Your task to perform on an android device: turn off sleep mode Image 0: 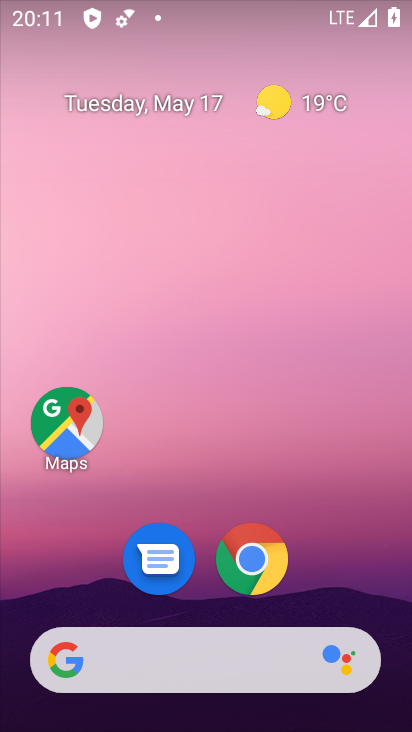
Step 0: drag from (194, 513) to (194, 110)
Your task to perform on an android device: turn off sleep mode Image 1: 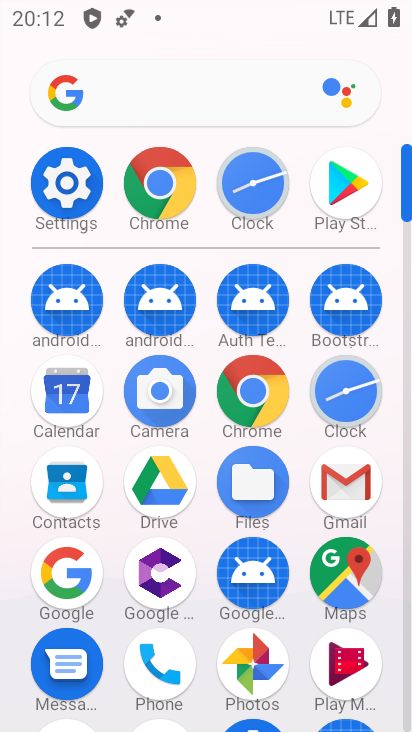
Step 1: click (59, 184)
Your task to perform on an android device: turn off sleep mode Image 2: 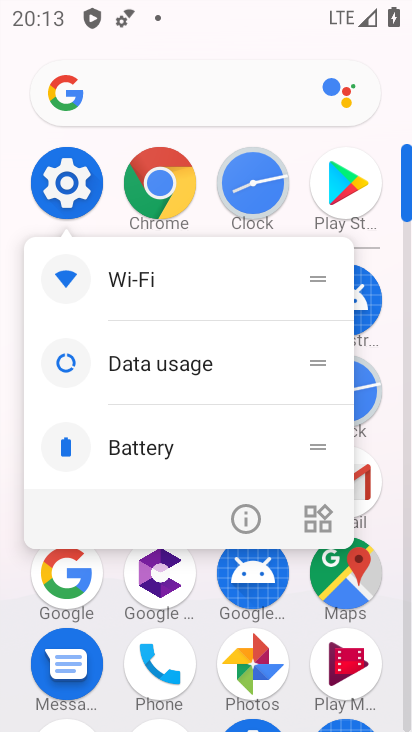
Step 2: click (248, 518)
Your task to perform on an android device: turn off sleep mode Image 3: 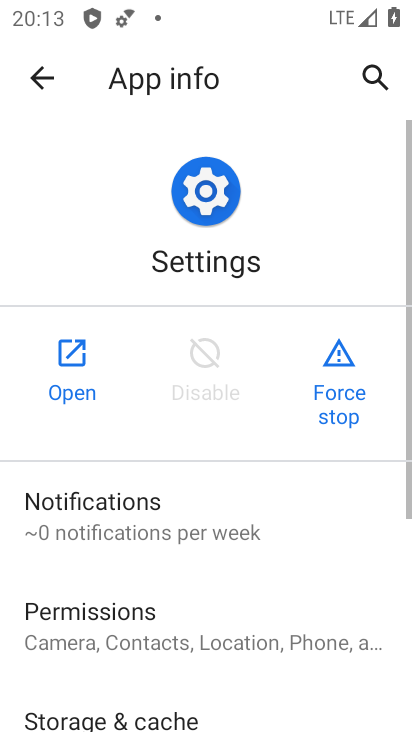
Step 3: click (76, 348)
Your task to perform on an android device: turn off sleep mode Image 4: 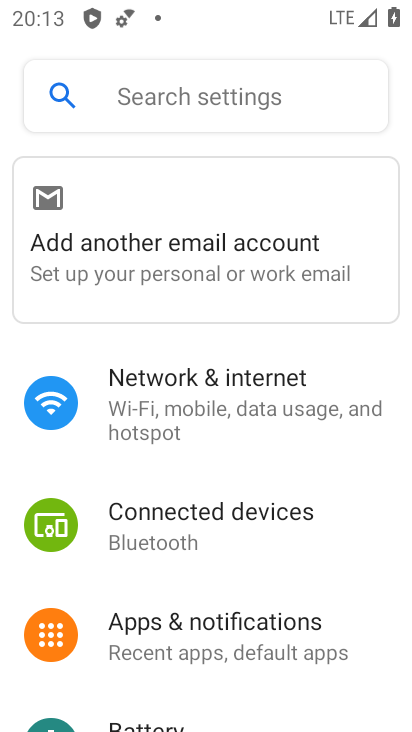
Step 4: click (136, 388)
Your task to perform on an android device: turn off sleep mode Image 5: 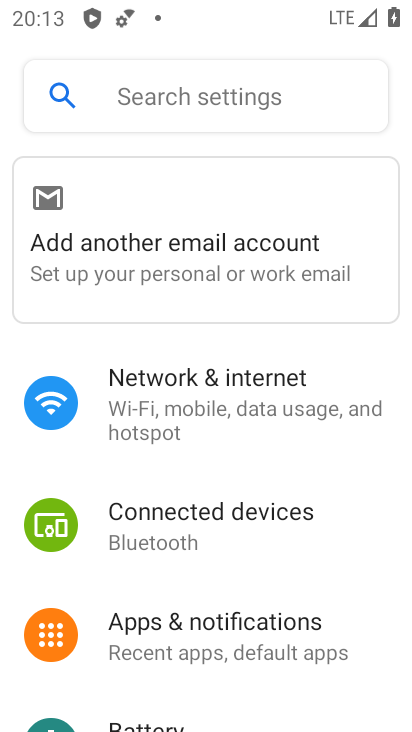
Step 5: click (137, 389)
Your task to perform on an android device: turn off sleep mode Image 6: 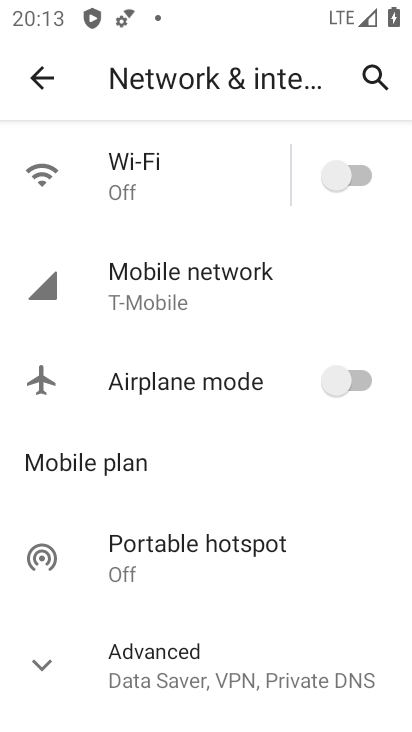
Step 6: drag from (150, 541) to (273, 134)
Your task to perform on an android device: turn off sleep mode Image 7: 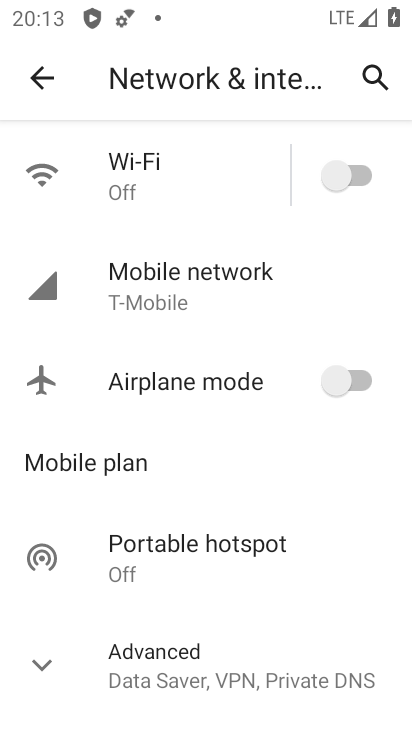
Step 7: click (47, 78)
Your task to perform on an android device: turn off sleep mode Image 8: 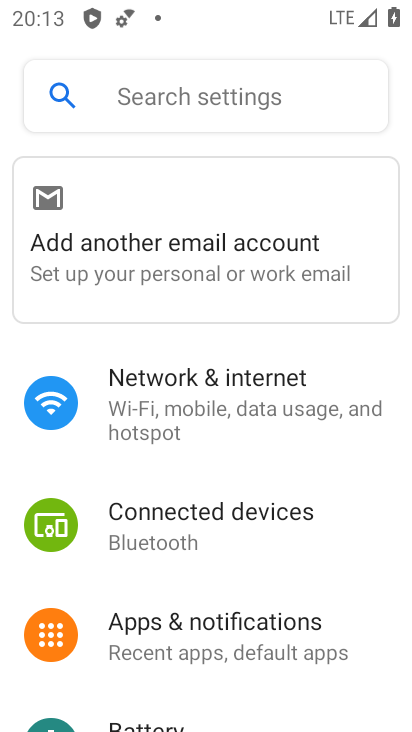
Step 8: drag from (252, 612) to (283, 255)
Your task to perform on an android device: turn off sleep mode Image 9: 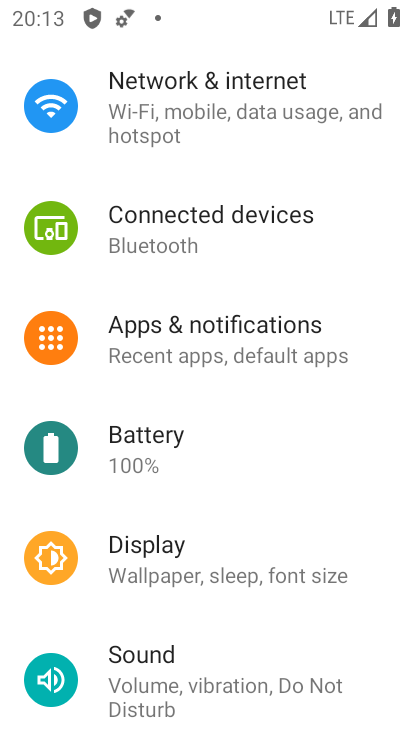
Step 9: click (172, 321)
Your task to perform on an android device: turn off sleep mode Image 10: 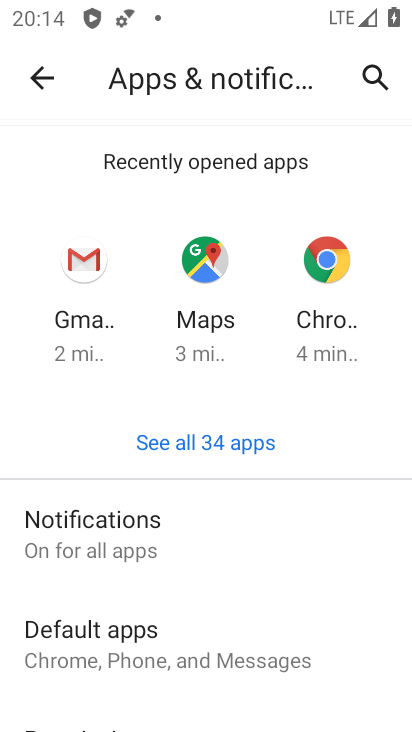
Step 10: click (27, 71)
Your task to perform on an android device: turn off sleep mode Image 11: 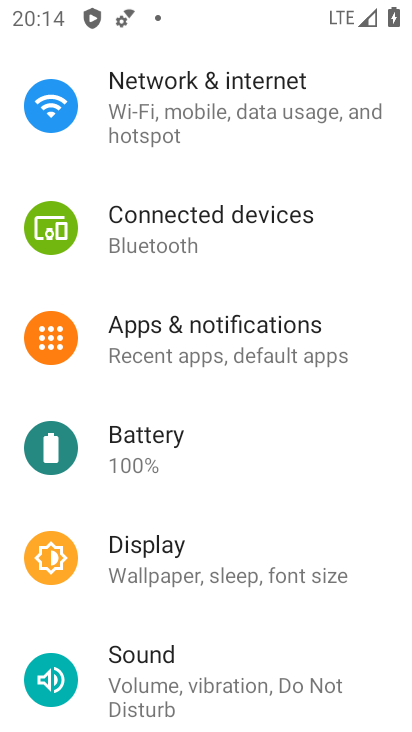
Step 11: drag from (175, 511) to (285, 105)
Your task to perform on an android device: turn off sleep mode Image 12: 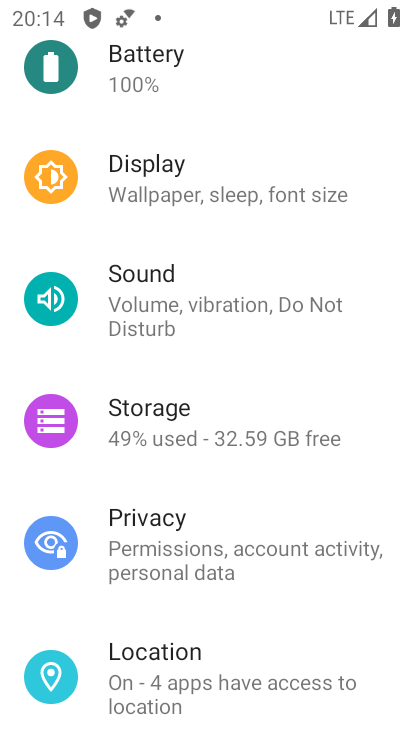
Step 12: drag from (200, 211) to (219, 723)
Your task to perform on an android device: turn off sleep mode Image 13: 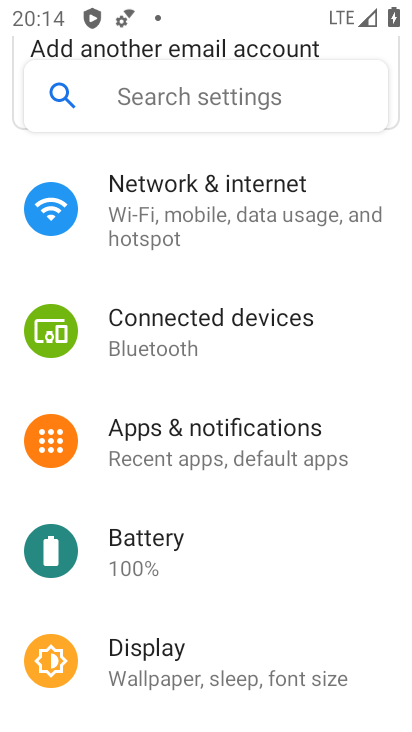
Step 13: drag from (221, 654) to (250, 410)
Your task to perform on an android device: turn off sleep mode Image 14: 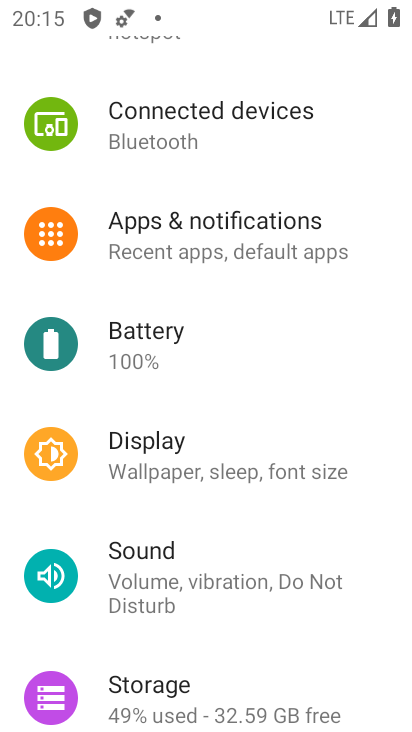
Step 14: click (167, 477)
Your task to perform on an android device: turn off sleep mode Image 15: 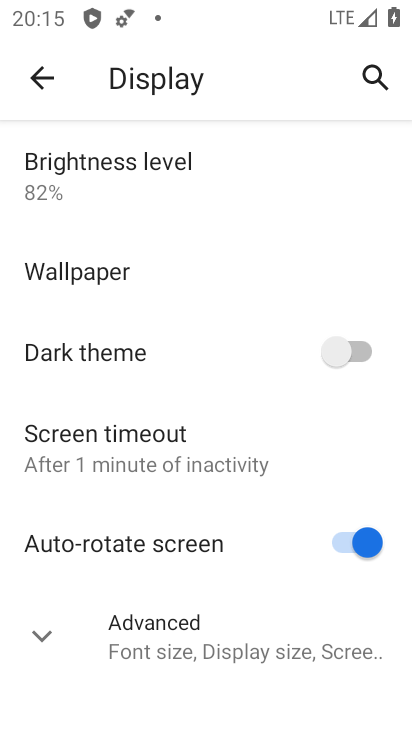
Step 15: drag from (279, 483) to (337, 346)
Your task to perform on an android device: turn off sleep mode Image 16: 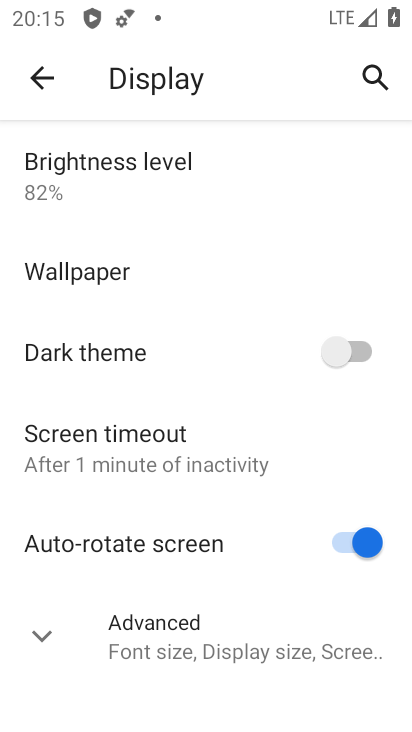
Step 16: click (136, 452)
Your task to perform on an android device: turn off sleep mode Image 17: 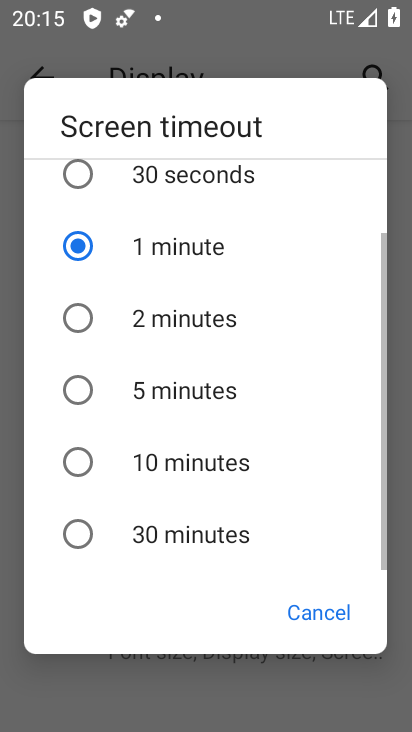
Step 17: click (157, 393)
Your task to perform on an android device: turn off sleep mode Image 18: 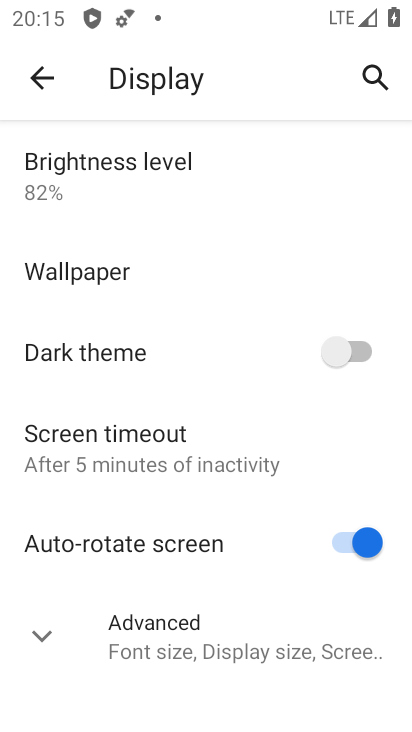
Step 18: task complete